Your task to perform on an android device: open chrome privacy settings Image 0: 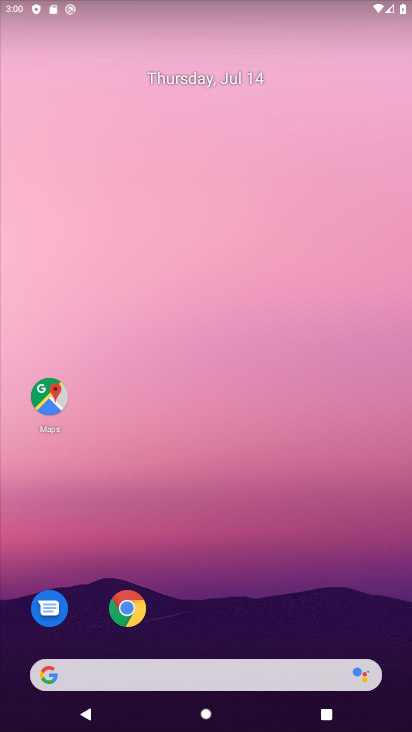
Step 0: drag from (218, 627) to (201, 156)
Your task to perform on an android device: open chrome privacy settings Image 1: 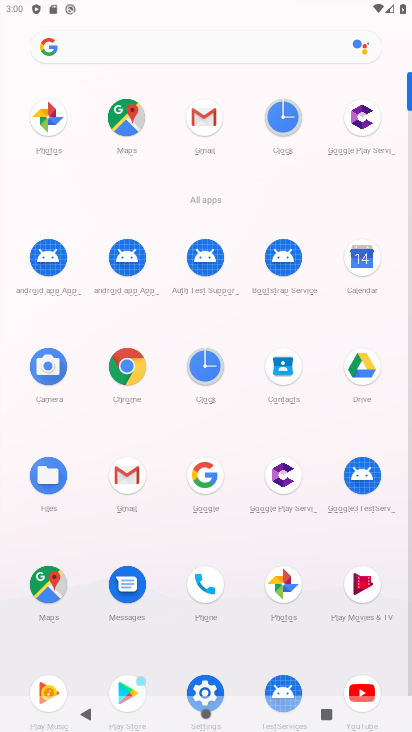
Step 1: click (127, 373)
Your task to perform on an android device: open chrome privacy settings Image 2: 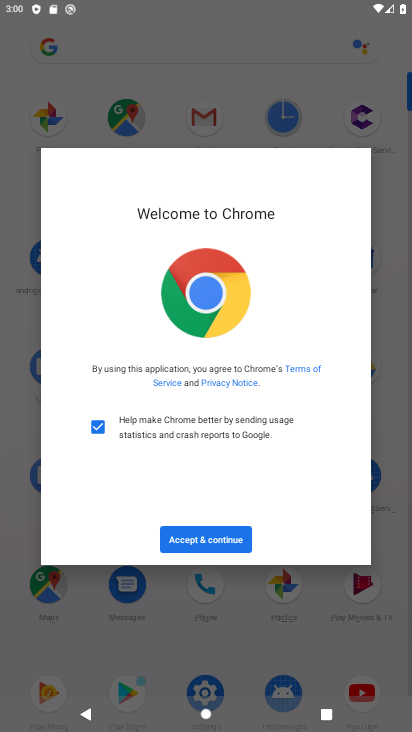
Step 2: click (184, 535)
Your task to perform on an android device: open chrome privacy settings Image 3: 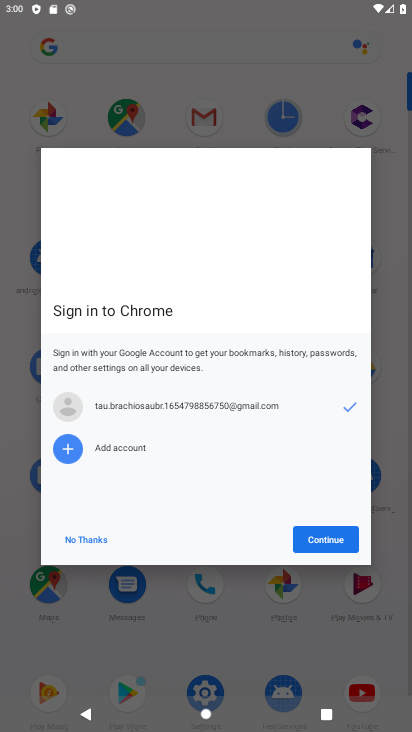
Step 3: click (324, 534)
Your task to perform on an android device: open chrome privacy settings Image 4: 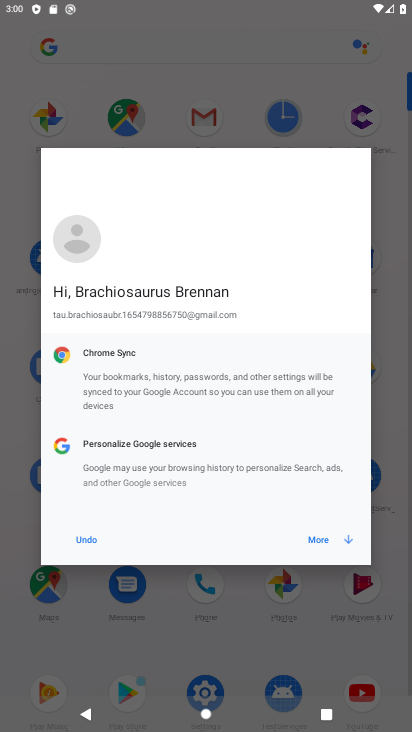
Step 4: click (322, 529)
Your task to perform on an android device: open chrome privacy settings Image 5: 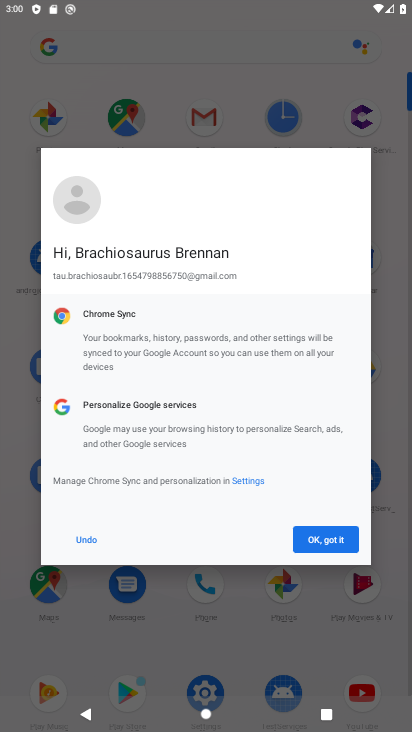
Step 5: click (333, 529)
Your task to perform on an android device: open chrome privacy settings Image 6: 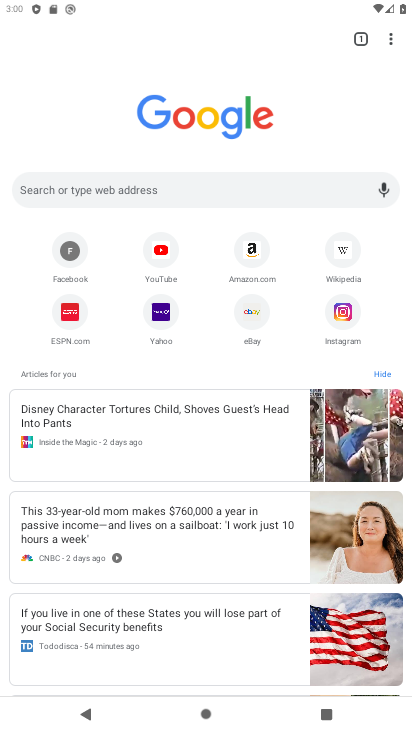
Step 6: click (389, 35)
Your task to perform on an android device: open chrome privacy settings Image 7: 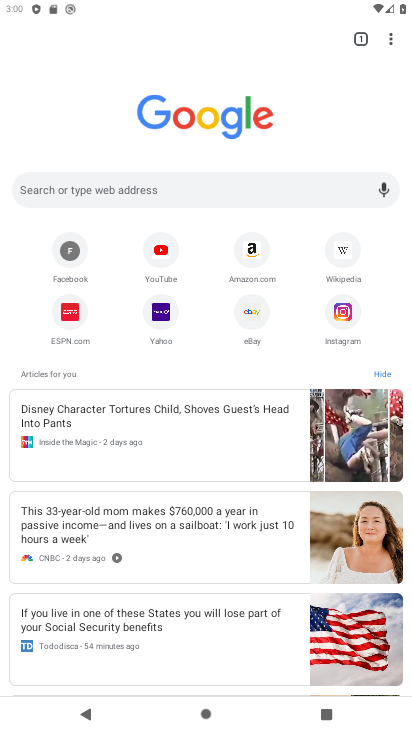
Step 7: drag from (388, 38) to (269, 320)
Your task to perform on an android device: open chrome privacy settings Image 8: 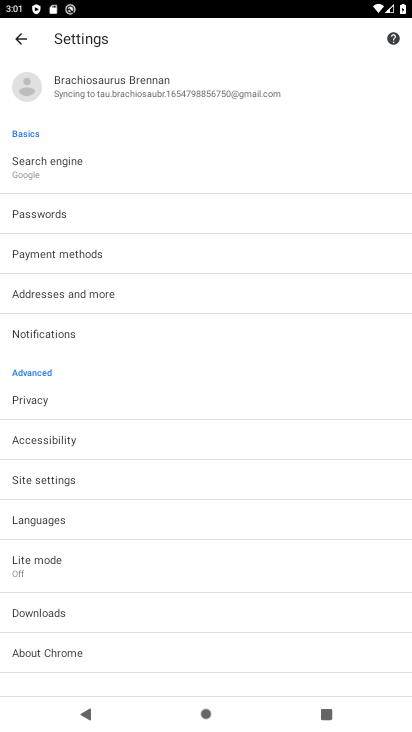
Step 8: click (33, 395)
Your task to perform on an android device: open chrome privacy settings Image 9: 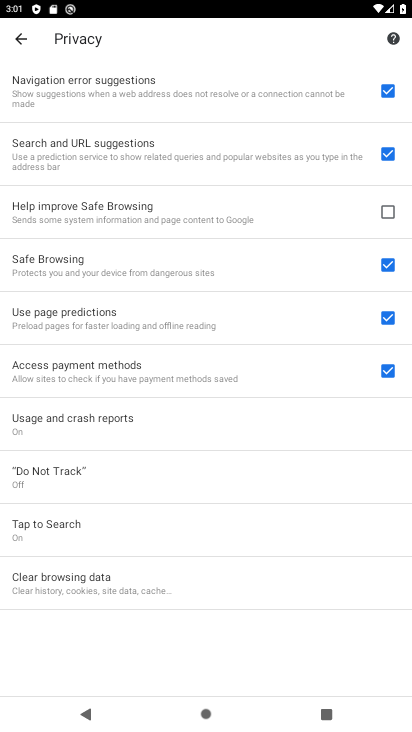
Step 9: task complete